Your task to perform on an android device: change timer sound Image 0: 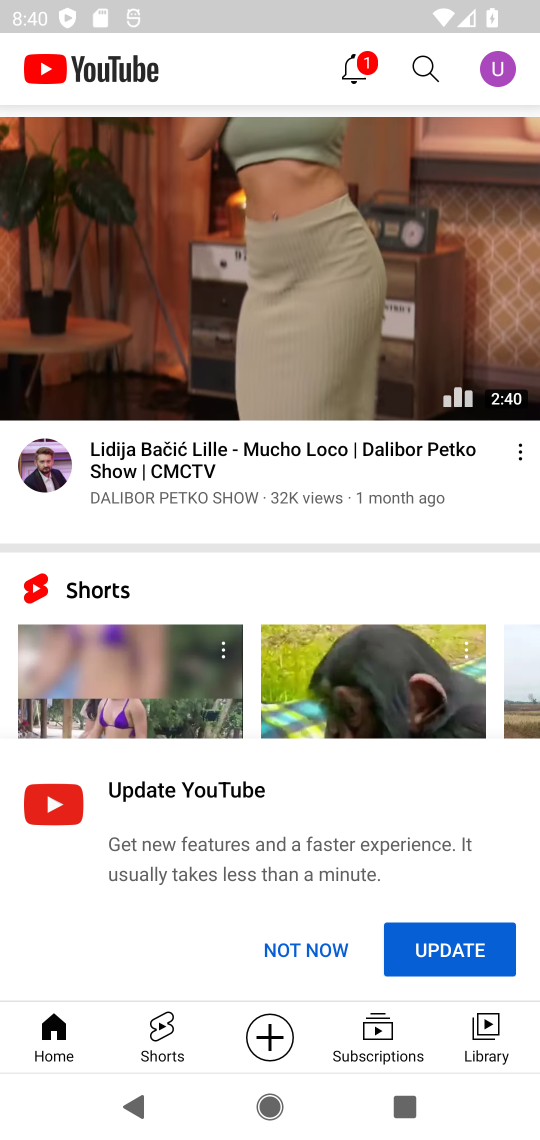
Step 0: press home button
Your task to perform on an android device: change timer sound Image 1: 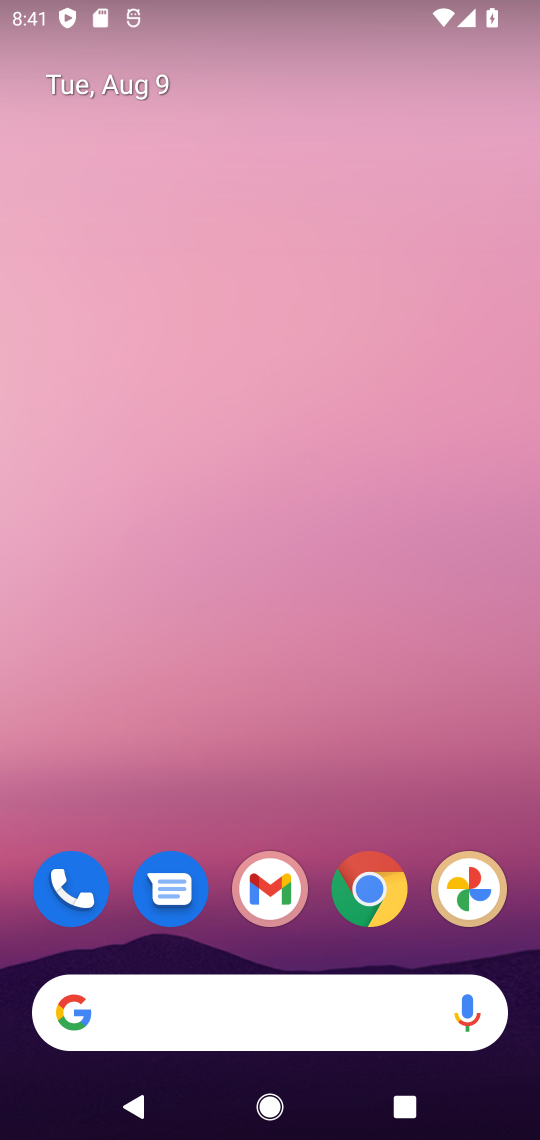
Step 1: drag from (84, 1036) to (353, 110)
Your task to perform on an android device: change timer sound Image 2: 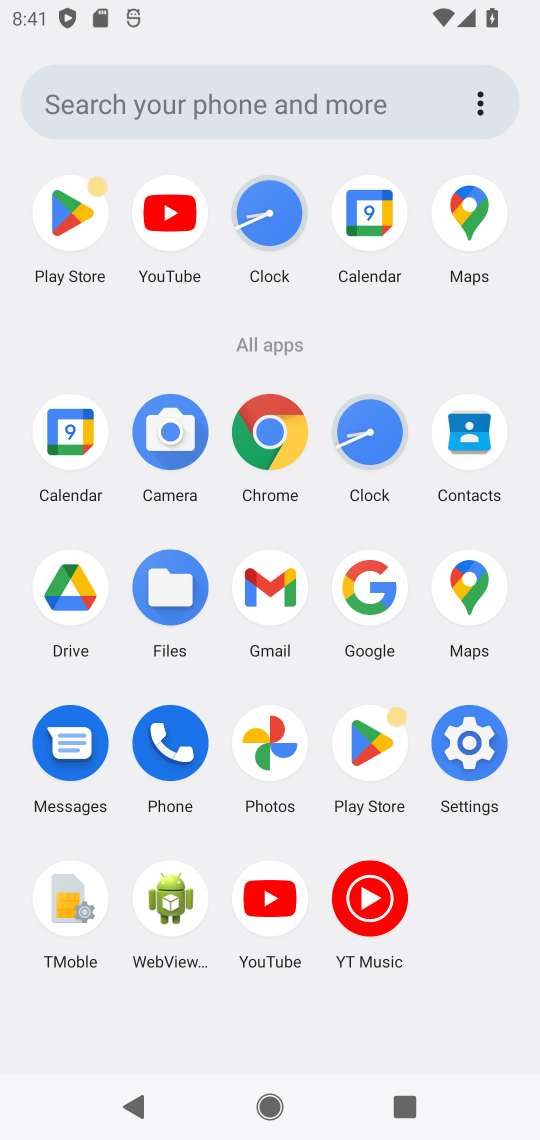
Step 2: click (385, 440)
Your task to perform on an android device: change timer sound Image 3: 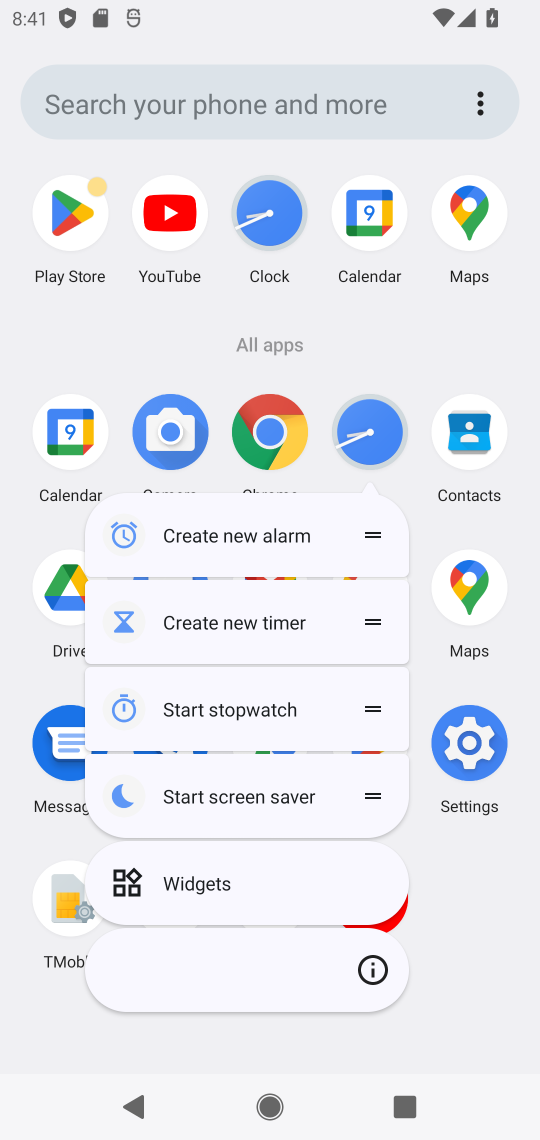
Step 3: click (371, 439)
Your task to perform on an android device: change timer sound Image 4: 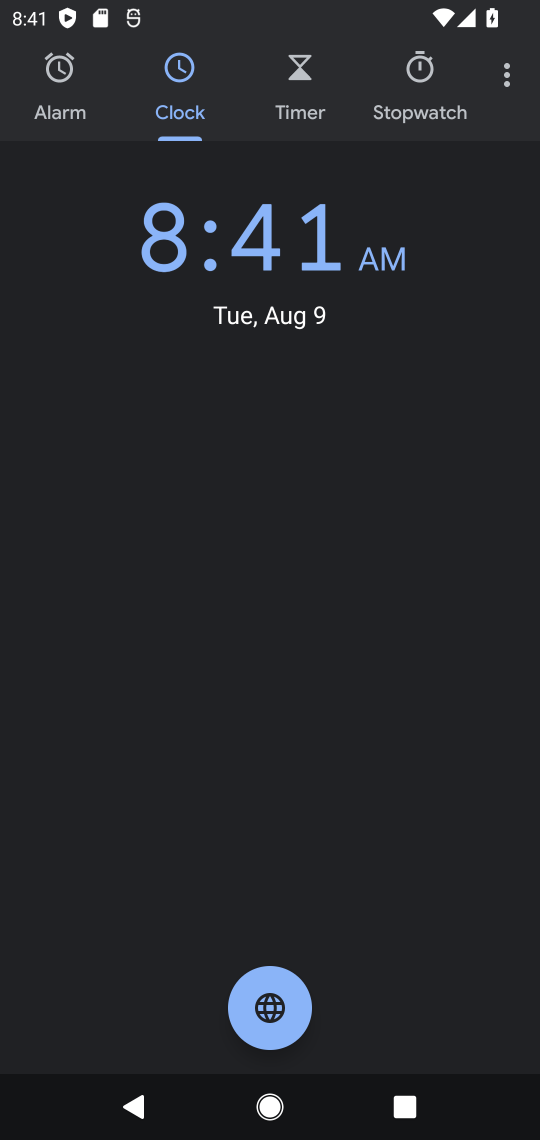
Step 4: click (512, 79)
Your task to perform on an android device: change timer sound Image 5: 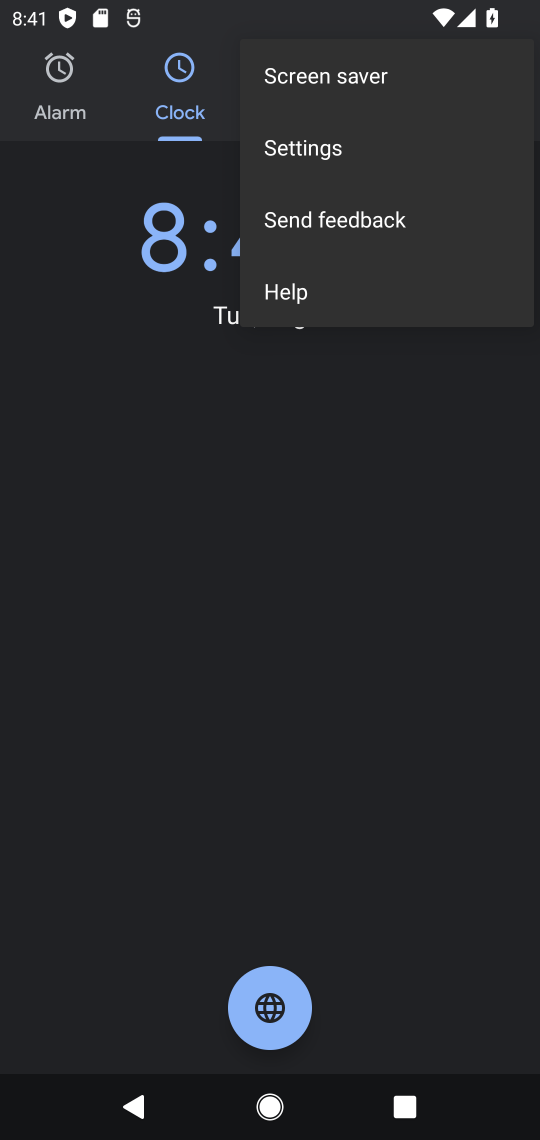
Step 5: click (314, 157)
Your task to perform on an android device: change timer sound Image 6: 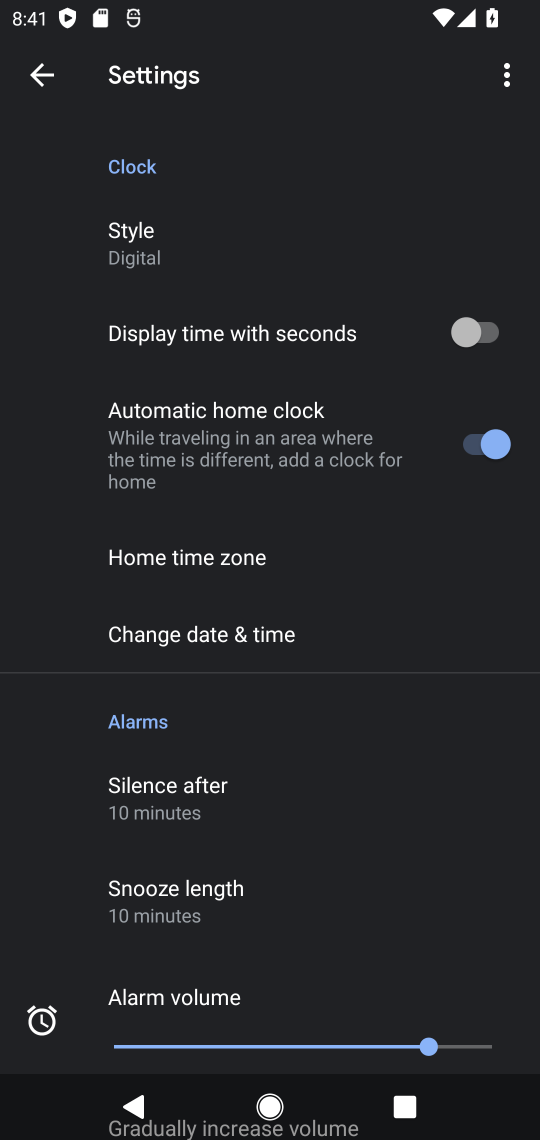
Step 6: drag from (260, 946) to (317, 322)
Your task to perform on an android device: change timer sound Image 7: 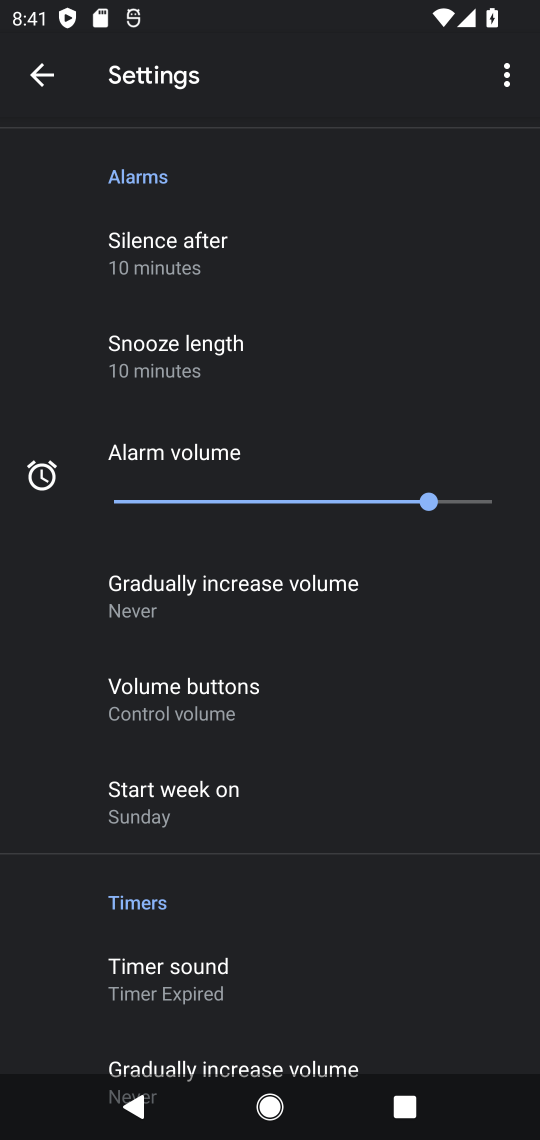
Step 7: click (199, 993)
Your task to perform on an android device: change timer sound Image 8: 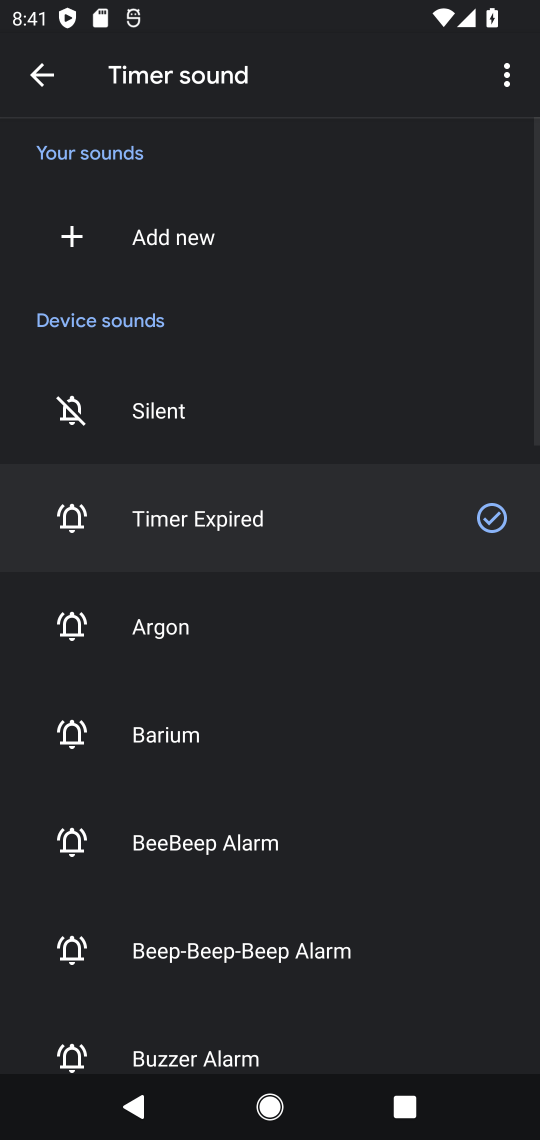
Step 8: click (168, 755)
Your task to perform on an android device: change timer sound Image 9: 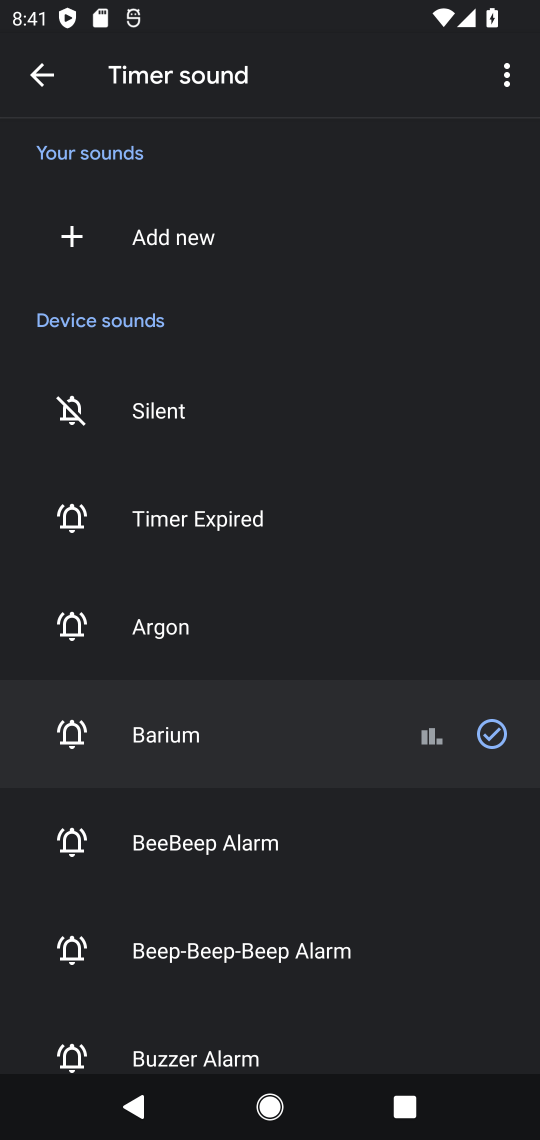
Step 9: task complete